Your task to perform on an android device: What is the recent news? Image 0: 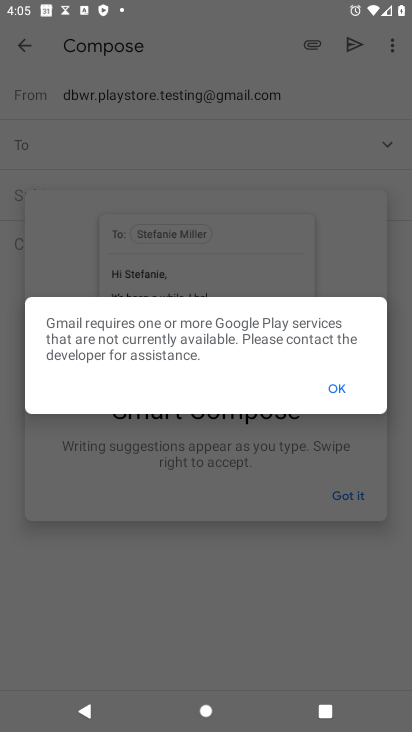
Step 0: press home button
Your task to perform on an android device: What is the recent news? Image 1: 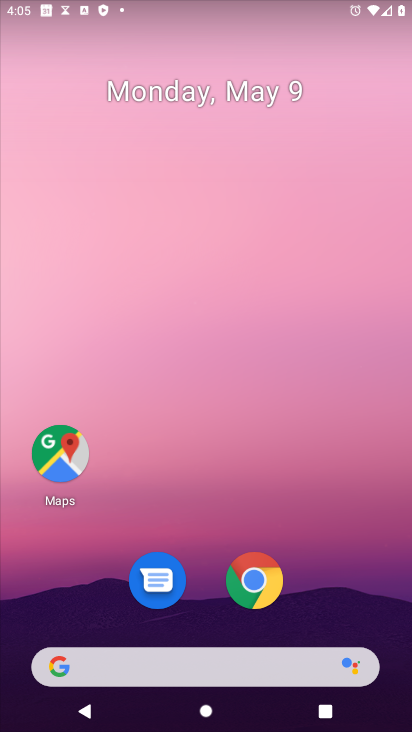
Step 1: drag from (321, 544) to (211, 113)
Your task to perform on an android device: What is the recent news? Image 2: 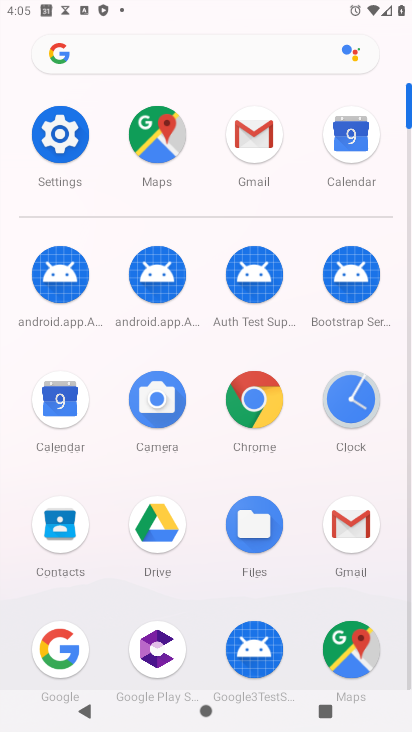
Step 2: click (63, 629)
Your task to perform on an android device: What is the recent news? Image 3: 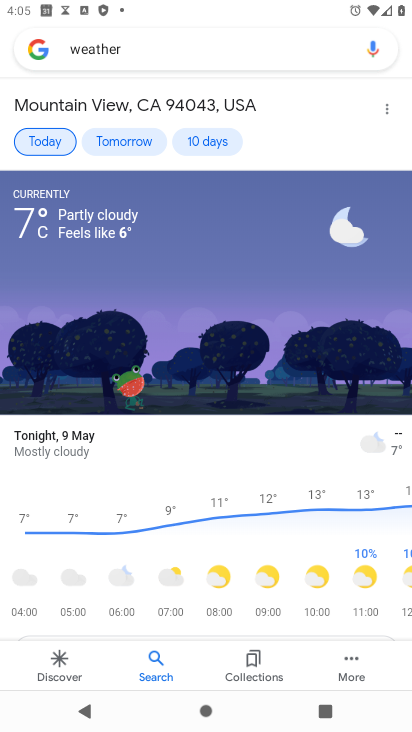
Step 3: click (144, 47)
Your task to perform on an android device: What is the recent news? Image 4: 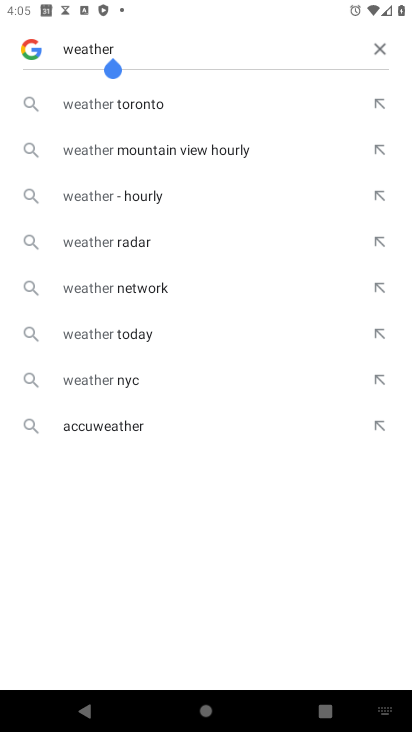
Step 4: click (379, 52)
Your task to perform on an android device: What is the recent news? Image 5: 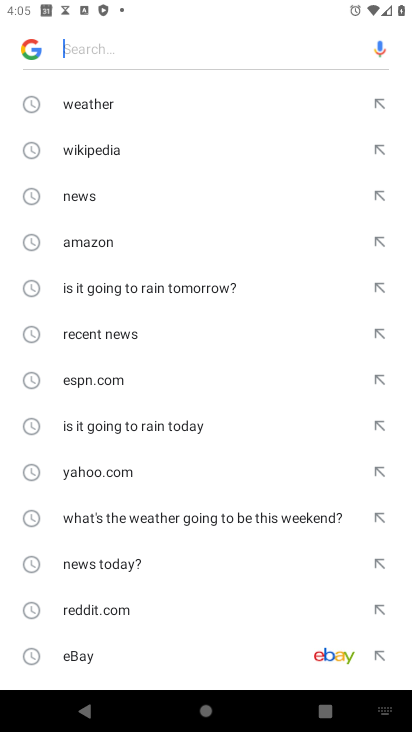
Step 5: click (102, 336)
Your task to perform on an android device: What is the recent news? Image 6: 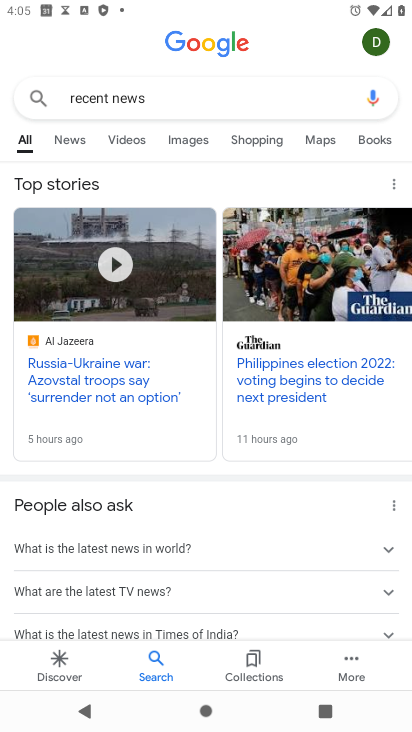
Step 6: task complete